Your task to perform on an android device: Empty the shopping cart on bestbuy. Search for "razer huntsman" on bestbuy, select the first entry, and add it to the cart. Image 0: 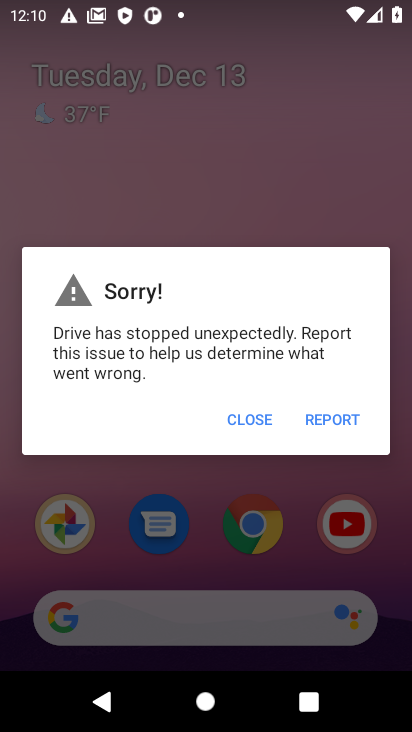
Step 0: press home button
Your task to perform on an android device: Empty the shopping cart on bestbuy. Search for "razer huntsman" on bestbuy, select the first entry, and add it to the cart. Image 1: 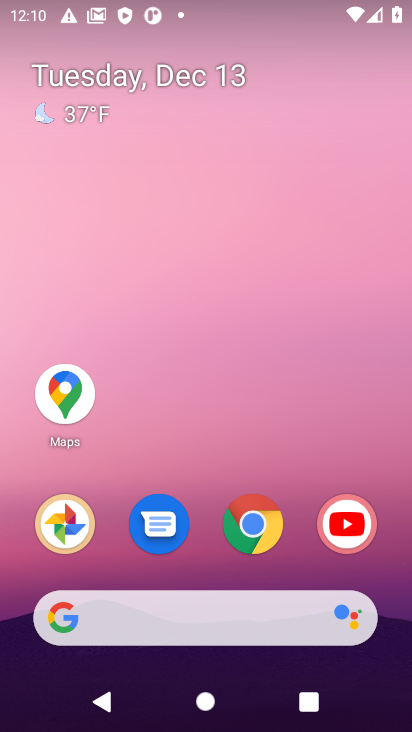
Step 1: click (258, 523)
Your task to perform on an android device: Empty the shopping cart on bestbuy. Search for "razer huntsman" on bestbuy, select the first entry, and add it to the cart. Image 2: 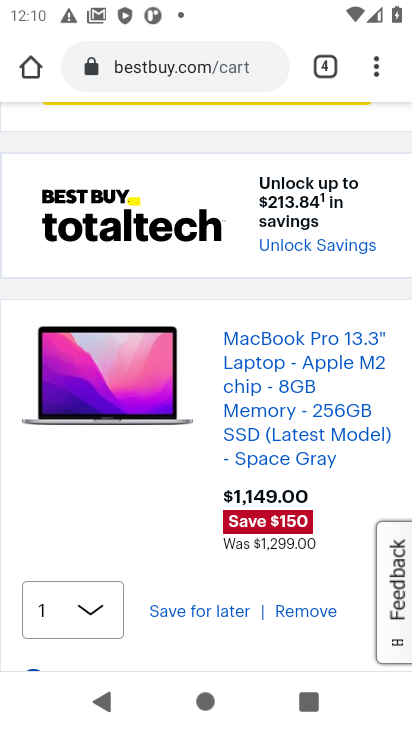
Step 2: click (308, 609)
Your task to perform on an android device: Empty the shopping cart on bestbuy. Search for "razer huntsman" on bestbuy, select the first entry, and add it to the cart. Image 3: 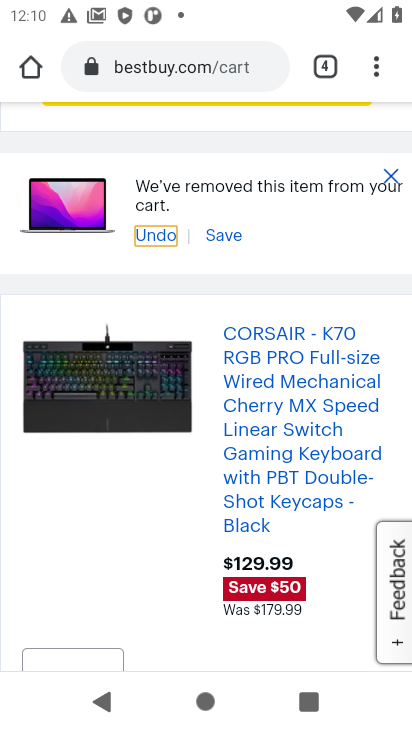
Step 3: drag from (160, 497) to (175, 248)
Your task to perform on an android device: Empty the shopping cart on bestbuy. Search for "razer huntsman" on bestbuy, select the first entry, and add it to the cart. Image 4: 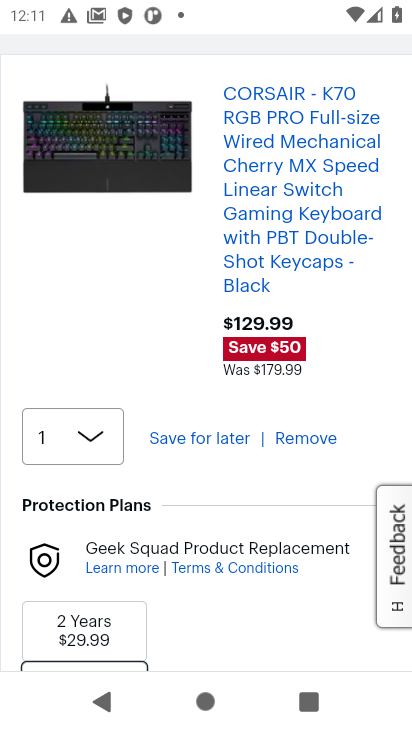
Step 4: click (292, 436)
Your task to perform on an android device: Empty the shopping cart on bestbuy. Search for "razer huntsman" on bestbuy, select the first entry, and add it to the cart. Image 5: 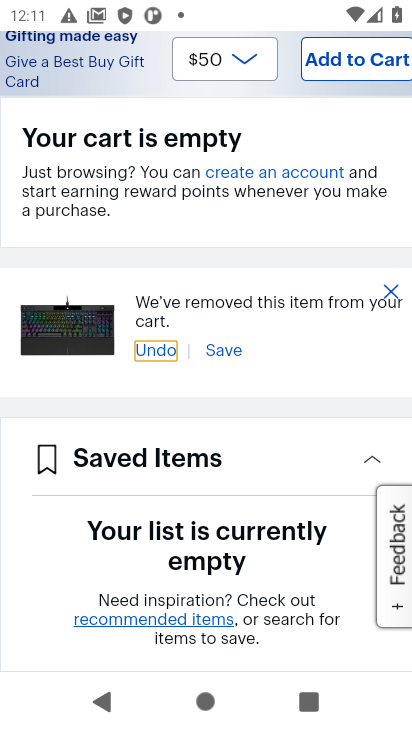
Step 5: drag from (215, 358) to (229, 475)
Your task to perform on an android device: Empty the shopping cart on bestbuy. Search for "razer huntsman" on bestbuy, select the first entry, and add it to the cart. Image 6: 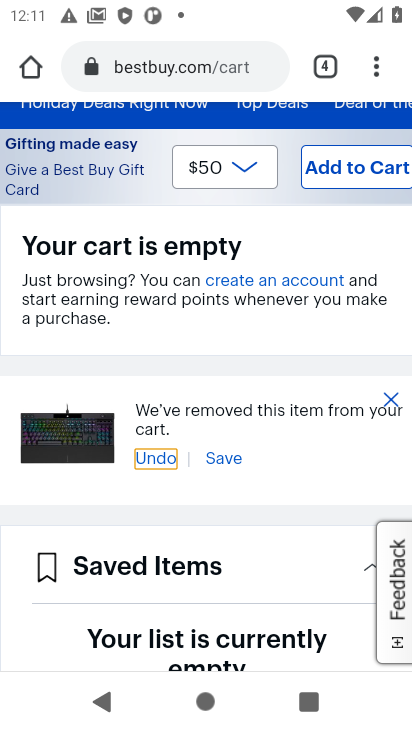
Step 6: drag from (235, 248) to (234, 548)
Your task to perform on an android device: Empty the shopping cart on bestbuy. Search for "razer huntsman" on bestbuy, select the first entry, and add it to the cart. Image 7: 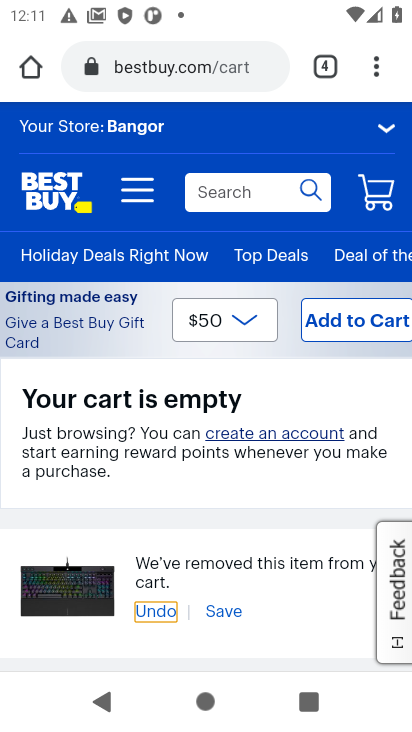
Step 7: click (200, 194)
Your task to perform on an android device: Empty the shopping cart on bestbuy. Search for "razer huntsman" on bestbuy, select the first entry, and add it to the cart. Image 8: 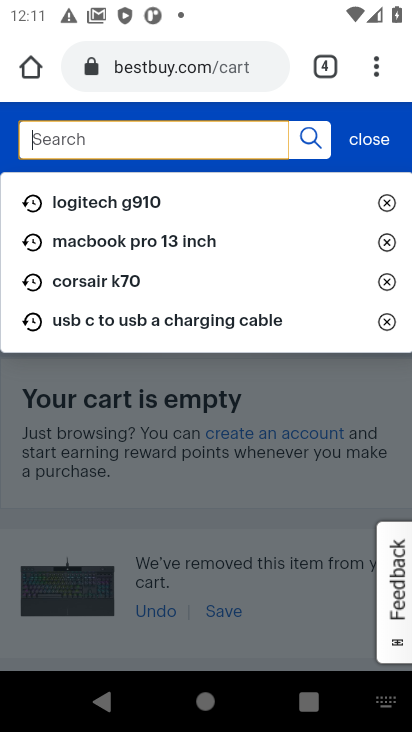
Step 8: type "razer huntsman"
Your task to perform on an android device: Empty the shopping cart on bestbuy. Search for "razer huntsman" on bestbuy, select the first entry, and add it to the cart. Image 9: 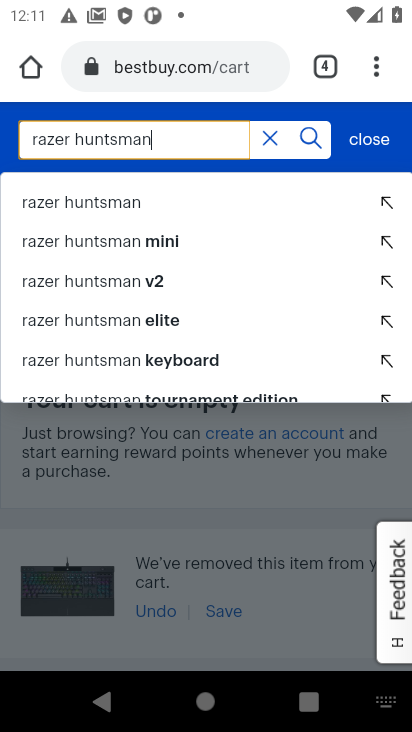
Step 9: click (109, 203)
Your task to perform on an android device: Empty the shopping cart on bestbuy. Search for "razer huntsman" on bestbuy, select the first entry, and add it to the cart. Image 10: 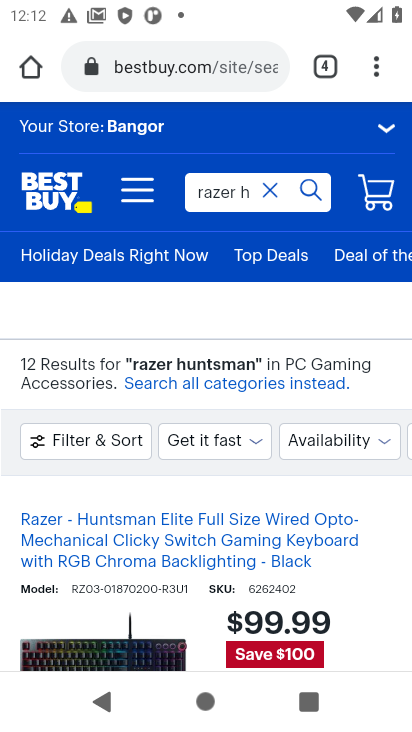
Step 10: drag from (170, 460) to (158, 278)
Your task to perform on an android device: Empty the shopping cart on bestbuy. Search for "razer huntsman" on bestbuy, select the first entry, and add it to the cart. Image 11: 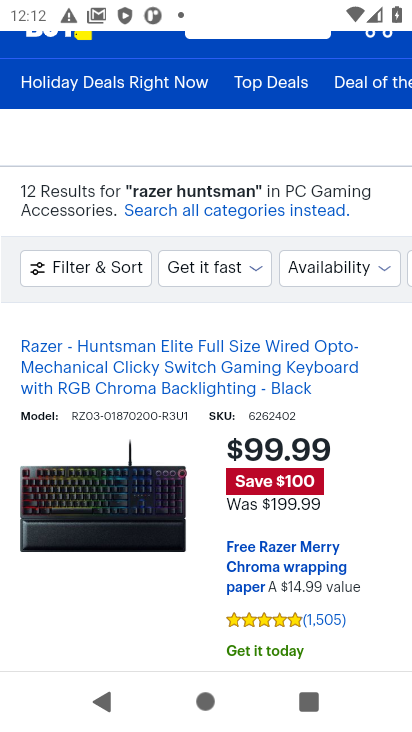
Step 11: drag from (374, 562) to (376, 467)
Your task to perform on an android device: Empty the shopping cart on bestbuy. Search for "razer huntsman" on bestbuy, select the first entry, and add it to the cart. Image 12: 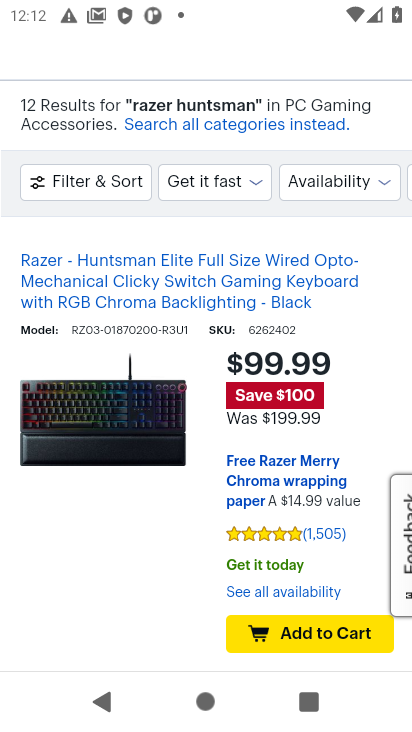
Step 12: click (305, 636)
Your task to perform on an android device: Empty the shopping cart on bestbuy. Search for "razer huntsman" on bestbuy, select the first entry, and add it to the cart. Image 13: 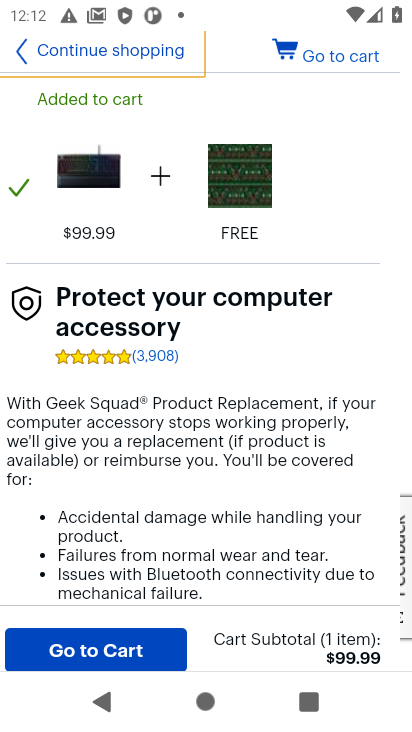
Step 13: task complete